Your task to perform on an android device: change notification settings in the gmail app Image 0: 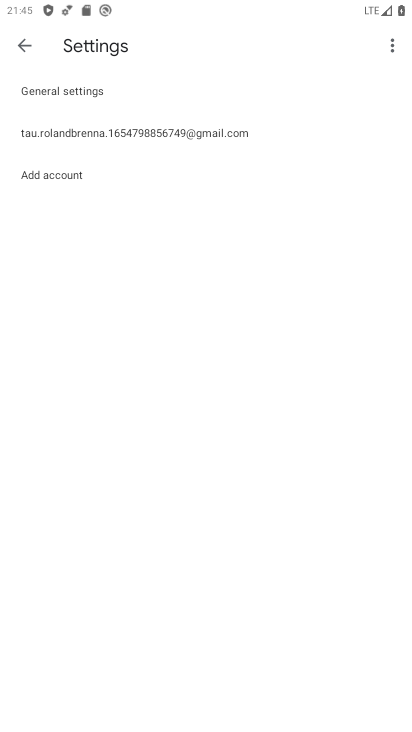
Step 0: press home button
Your task to perform on an android device: change notification settings in the gmail app Image 1: 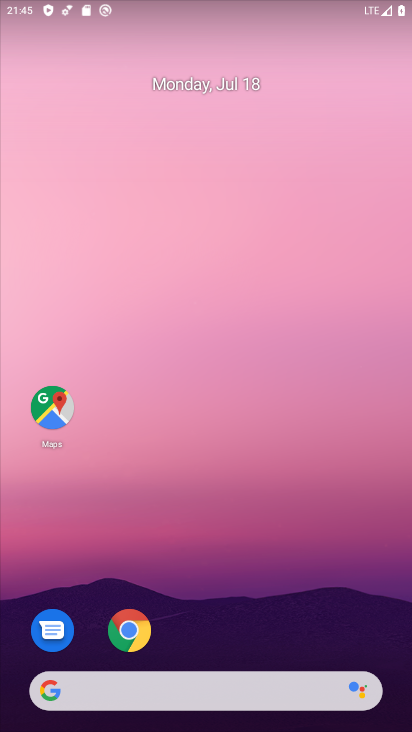
Step 1: drag from (216, 625) to (206, 83)
Your task to perform on an android device: change notification settings in the gmail app Image 2: 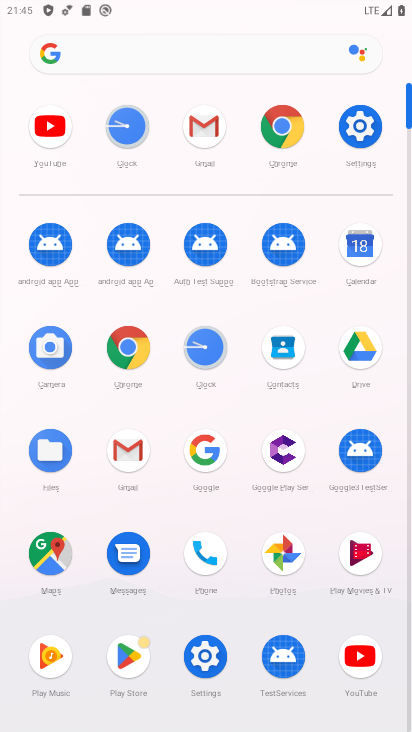
Step 2: click (208, 125)
Your task to perform on an android device: change notification settings in the gmail app Image 3: 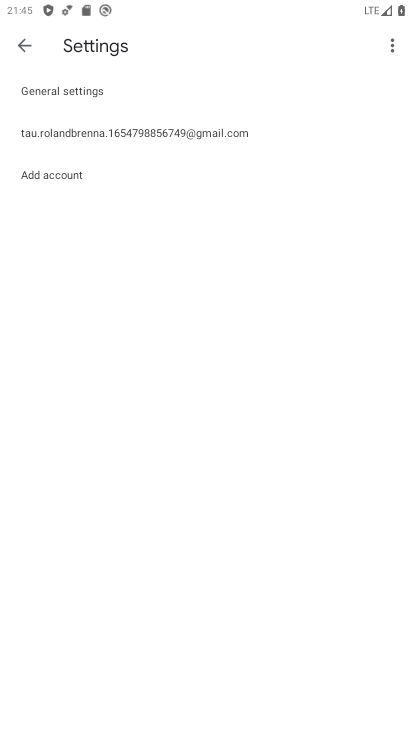
Step 3: click (62, 99)
Your task to perform on an android device: change notification settings in the gmail app Image 4: 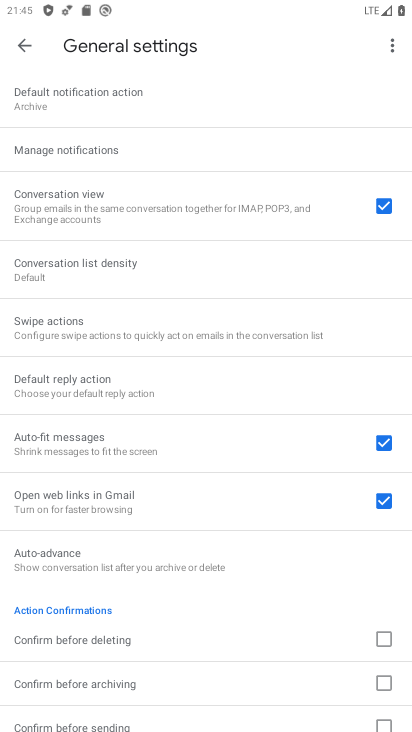
Step 4: click (23, 48)
Your task to perform on an android device: change notification settings in the gmail app Image 5: 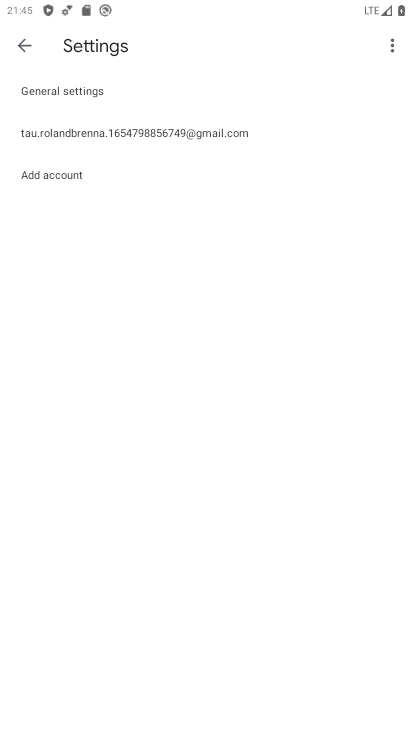
Step 5: click (195, 130)
Your task to perform on an android device: change notification settings in the gmail app Image 6: 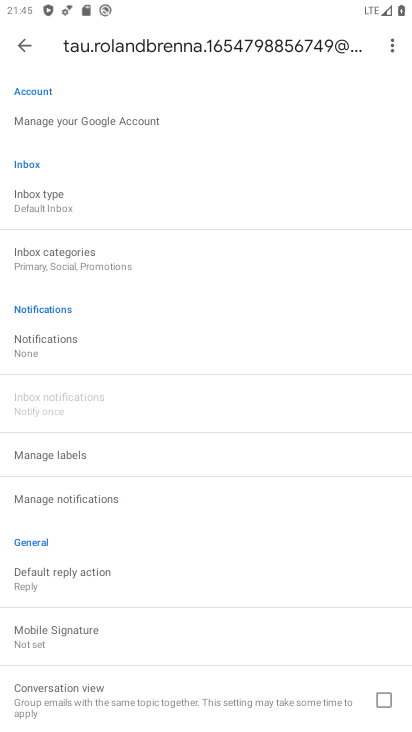
Step 6: click (62, 352)
Your task to perform on an android device: change notification settings in the gmail app Image 7: 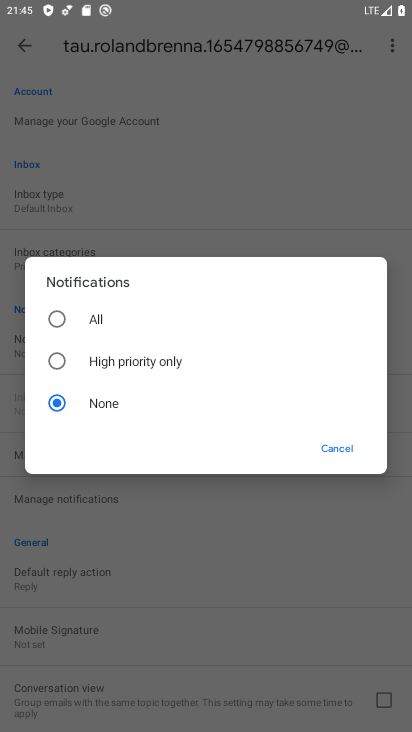
Step 7: click (100, 316)
Your task to perform on an android device: change notification settings in the gmail app Image 8: 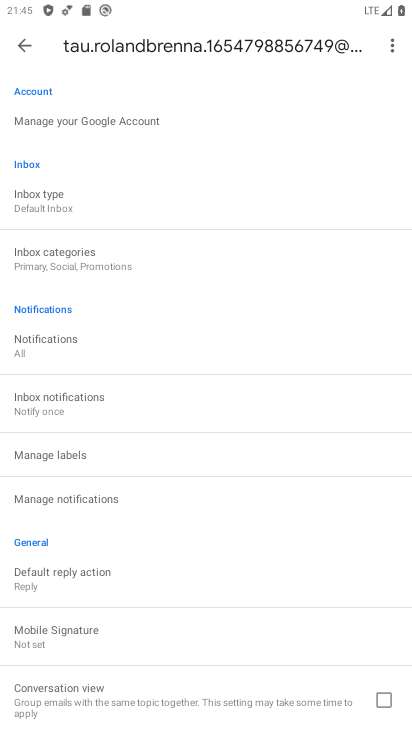
Step 8: task complete